Your task to perform on an android device: add a contact in the contacts app Image 0: 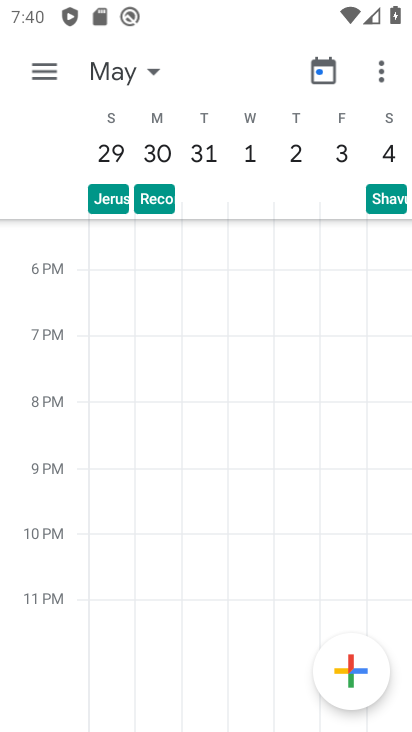
Step 0: drag from (79, 450) to (82, 275)
Your task to perform on an android device: add a contact in the contacts app Image 1: 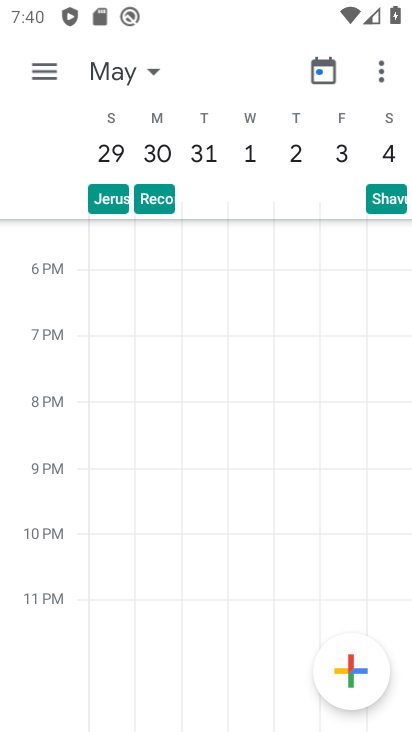
Step 1: press home button
Your task to perform on an android device: add a contact in the contacts app Image 2: 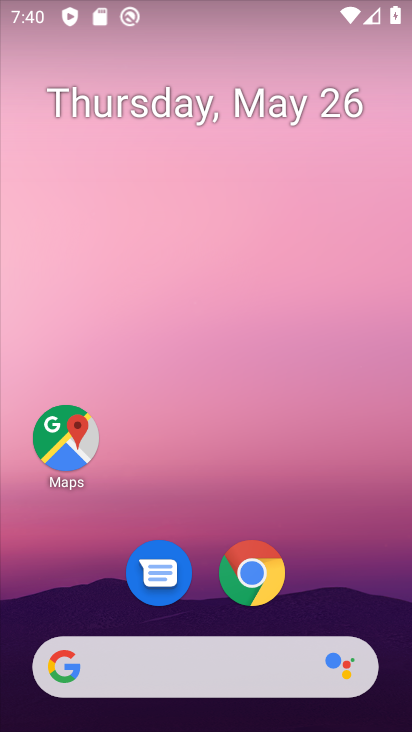
Step 2: drag from (220, 605) to (183, 44)
Your task to perform on an android device: add a contact in the contacts app Image 3: 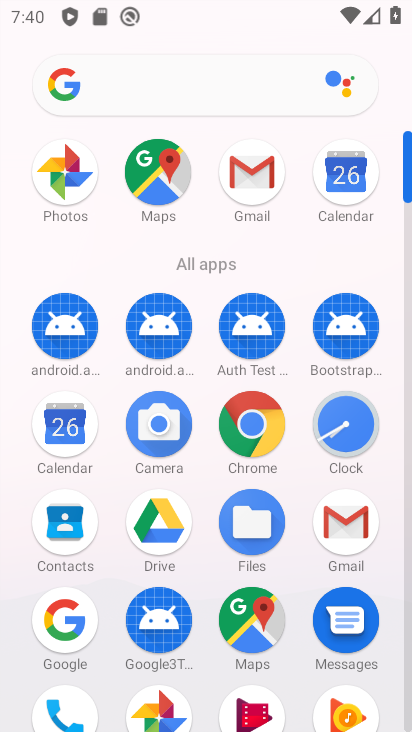
Step 3: click (79, 709)
Your task to perform on an android device: add a contact in the contacts app Image 4: 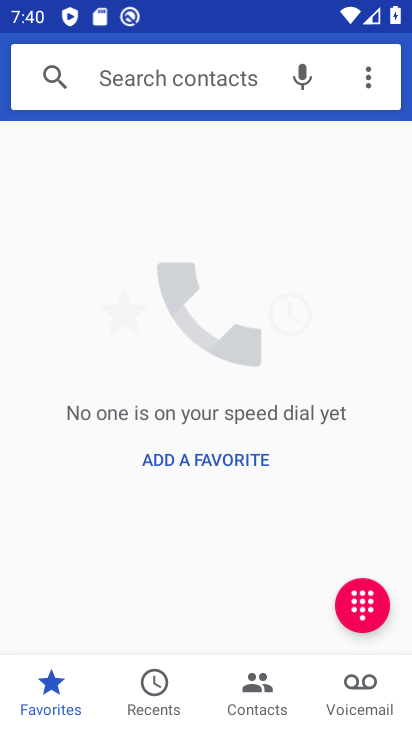
Step 4: click (242, 703)
Your task to perform on an android device: add a contact in the contacts app Image 5: 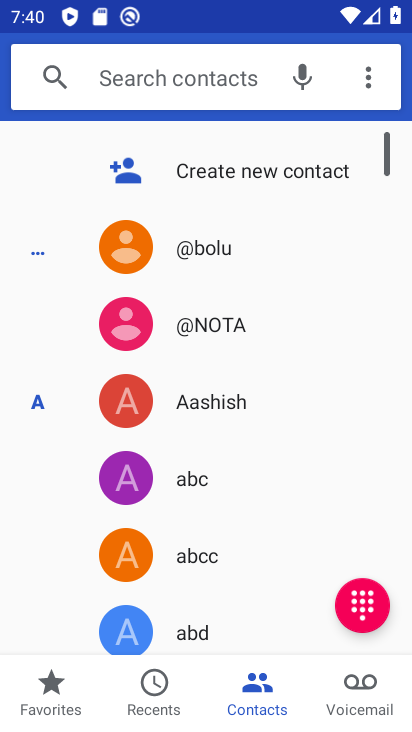
Step 5: click (224, 185)
Your task to perform on an android device: add a contact in the contacts app Image 6: 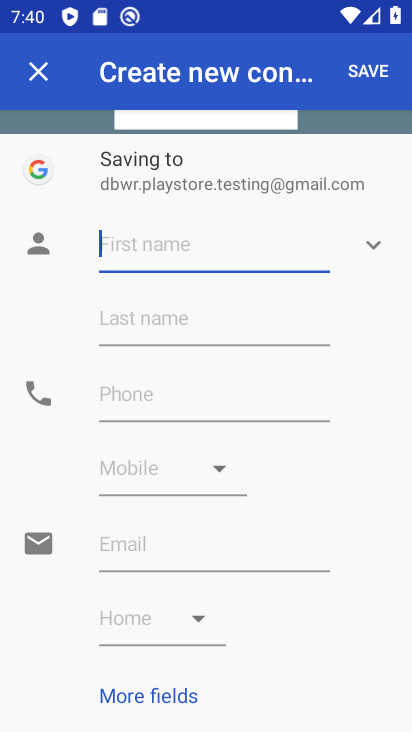
Step 6: type "mjik"
Your task to perform on an android device: add a contact in the contacts app Image 7: 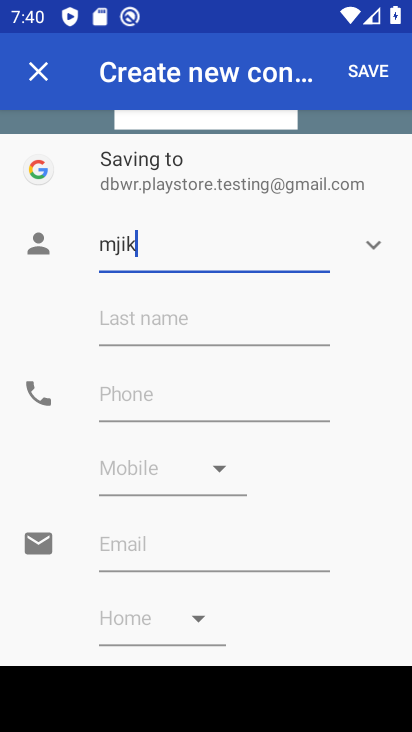
Step 7: type ""
Your task to perform on an android device: add a contact in the contacts app Image 8: 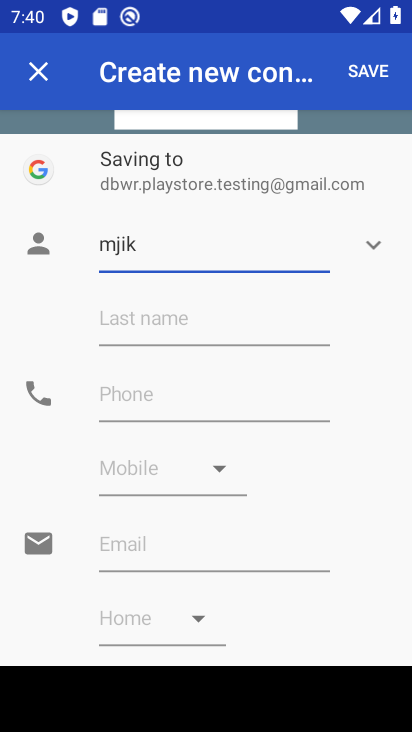
Step 8: click (152, 414)
Your task to perform on an android device: add a contact in the contacts app Image 9: 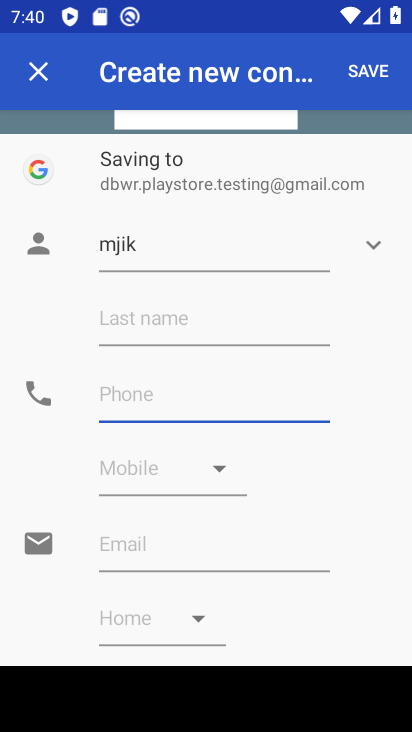
Step 9: type "90890"
Your task to perform on an android device: add a contact in the contacts app Image 10: 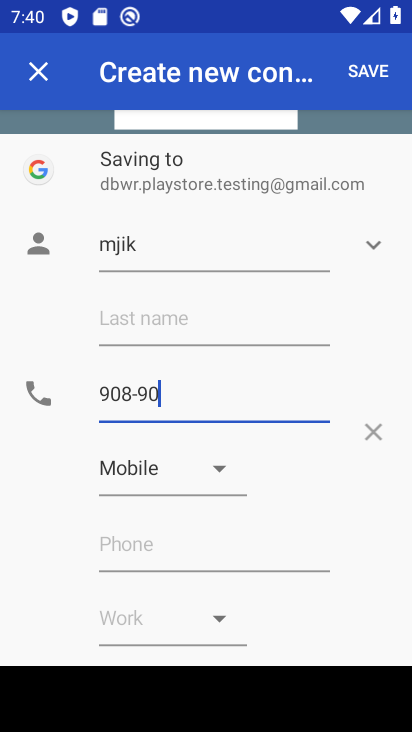
Step 10: click (376, 79)
Your task to perform on an android device: add a contact in the contacts app Image 11: 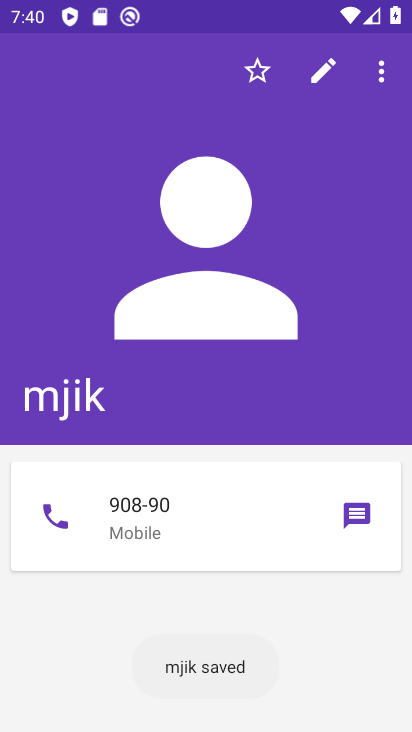
Step 11: task complete